Your task to perform on an android device: refresh tabs in the chrome app Image 0: 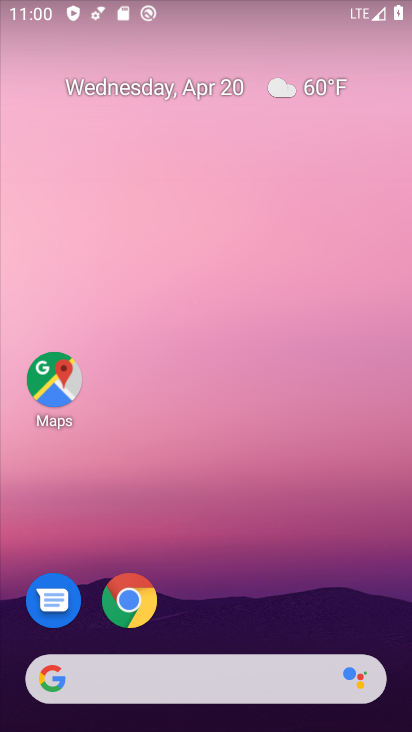
Step 0: click (132, 607)
Your task to perform on an android device: refresh tabs in the chrome app Image 1: 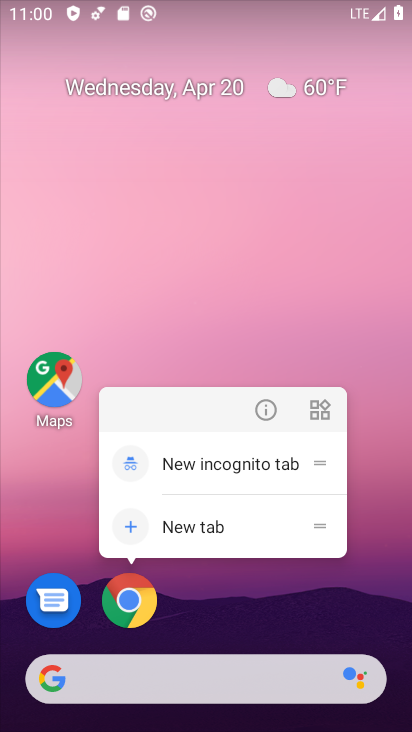
Step 1: click (132, 607)
Your task to perform on an android device: refresh tabs in the chrome app Image 2: 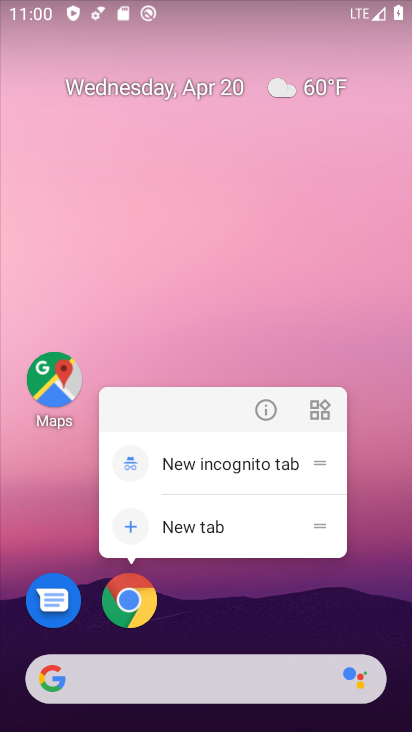
Step 2: drag from (361, 599) to (365, 83)
Your task to perform on an android device: refresh tabs in the chrome app Image 3: 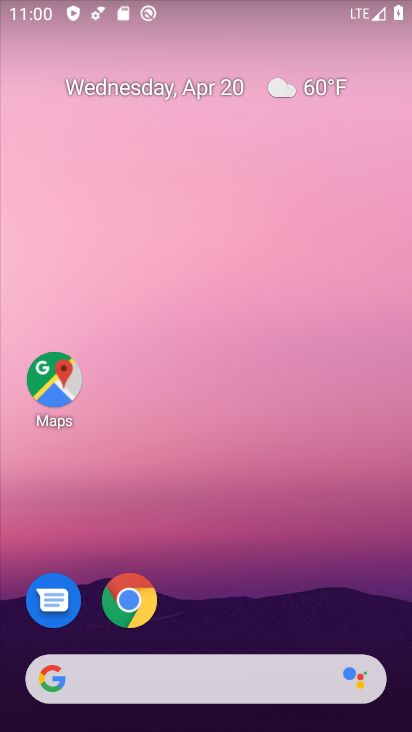
Step 3: drag from (251, 545) to (285, 83)
Your task to perform on an android device: refresh tabs in the chrome app Image 4: 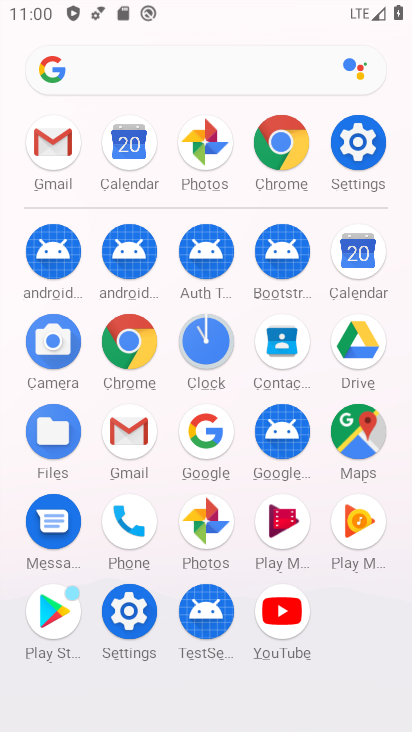
Step 4: click (130, 334)
Your task to perform on an android device: refresh tabs in the chrome app Image 5: 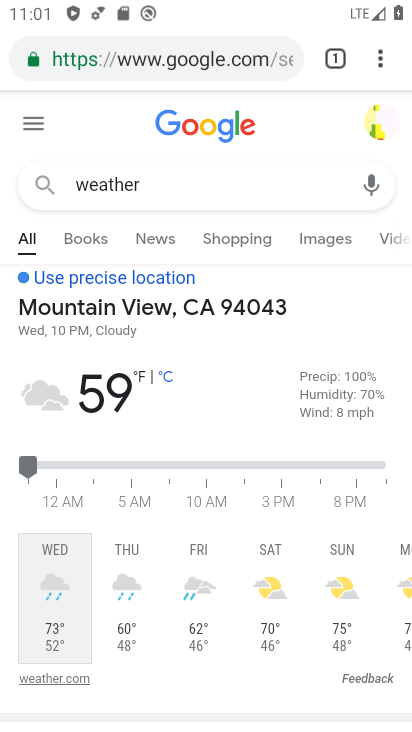
Step 5: click (381, 57)
Your task to perform on an android device: refresh tabs in the chrome app Image 6: 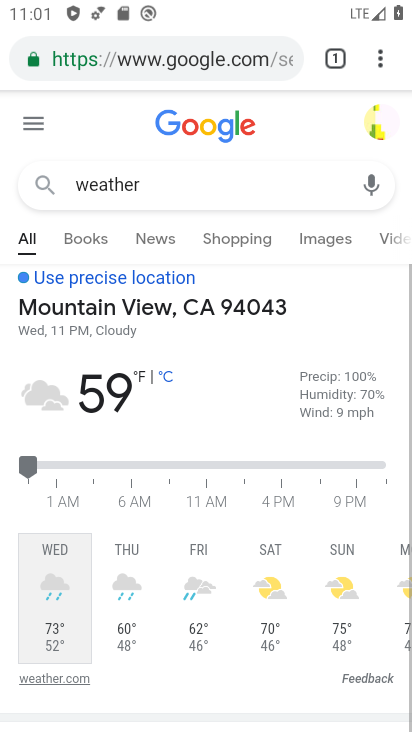
Step 6: task complete